Your task to perform on an android device: open sync settings in chrome Image 0: 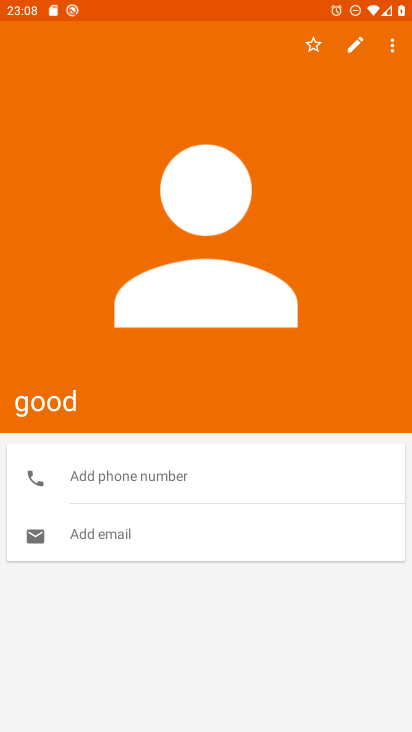
Step 0: press home button
Your task to perform on an android device: open sync settings in chrome Image 1: 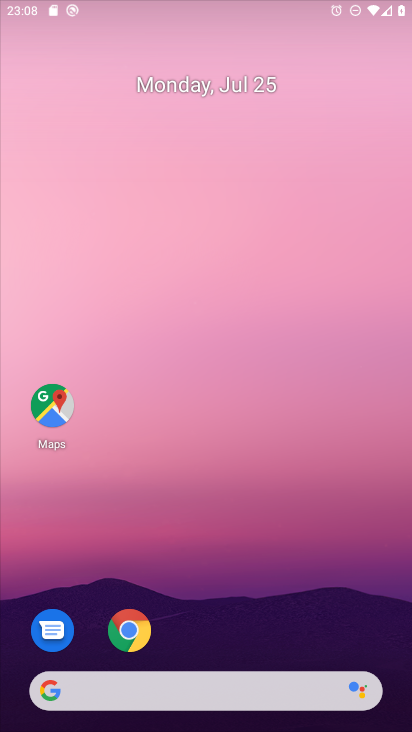
Step 1: drag from (248, 621) to (242, 84)
Your task to perform on an android device: open sync settings in chrome Image 2: 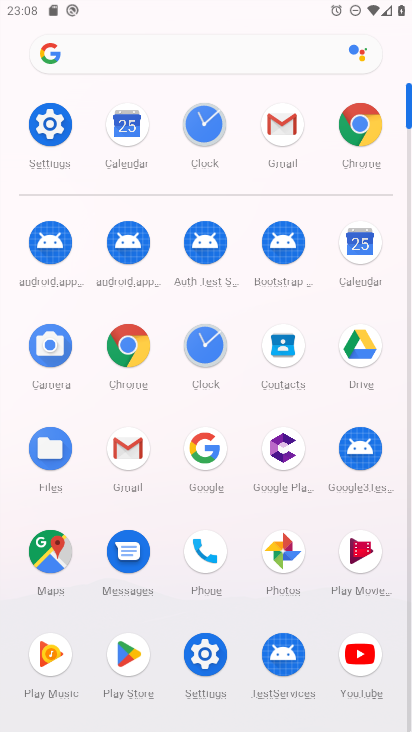
Step 2: click (373, 123)
Your task to perform on an android device: open sync settings in chrome Image 3: 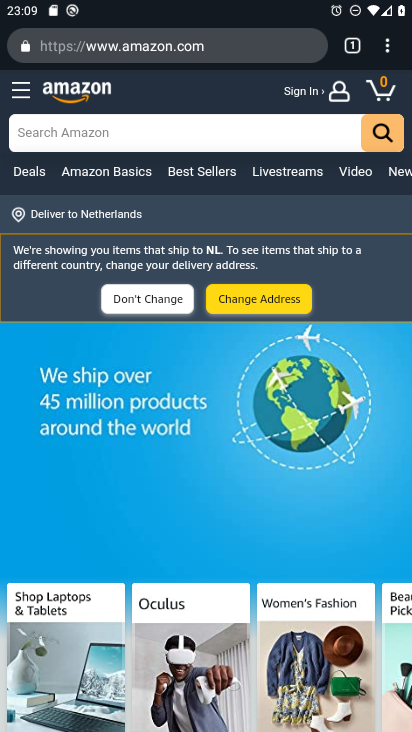
Step 3: drag from (394, 44) to (232, 596)
Your task to perform on an android device: open sync settings in chrome Image 4: 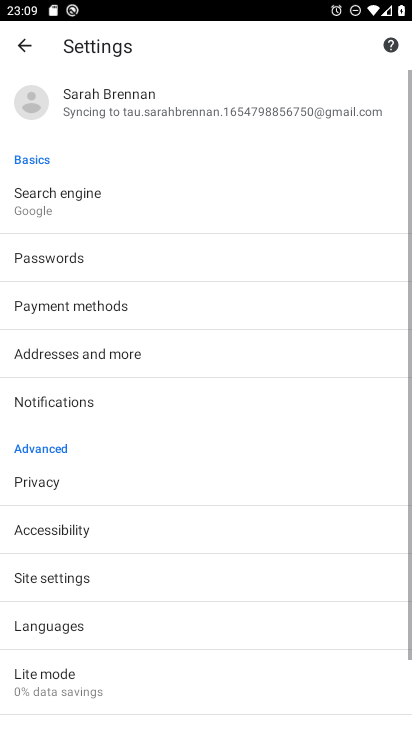
Step 4: click (185, 104)
Your task to perform on an android device: open sync settings in chrome Image 5: 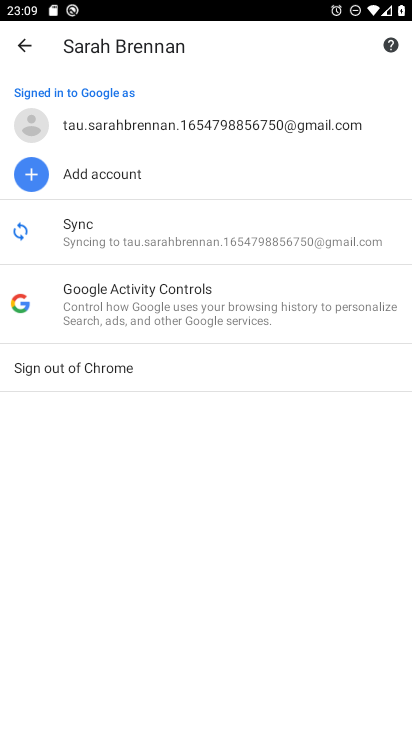
Step 5: click (129, 238)
Your task to perform on an android device: open sync settings in chrome Image 6: 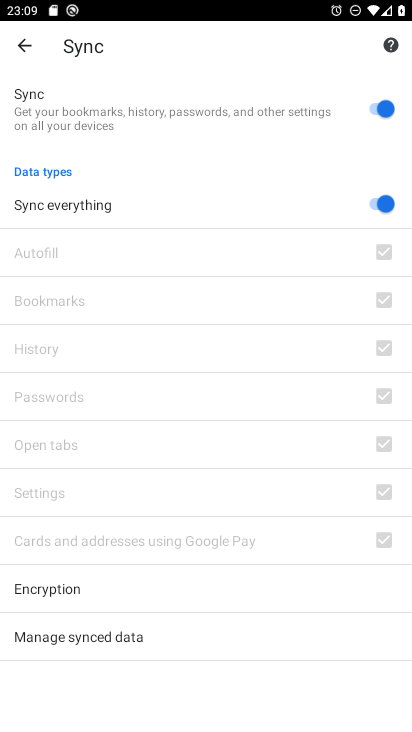
Step 6: task complete